Your task to perform on an android device: Go to location settings Image 0: 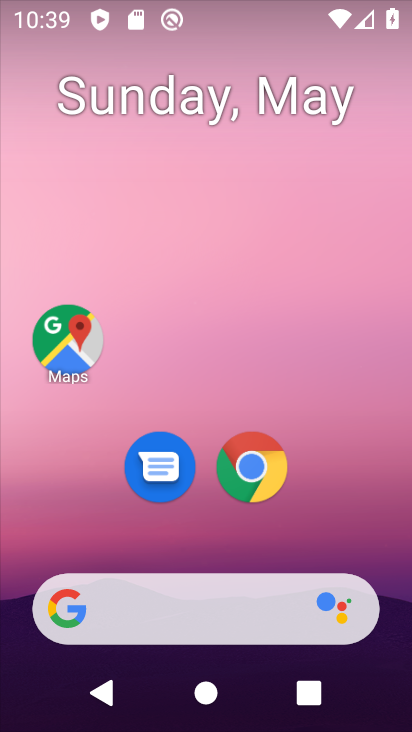
Step 0: drag from (344, 546) to (330, 6)
Your task to perform on an android device: Go to location settings Image 1: 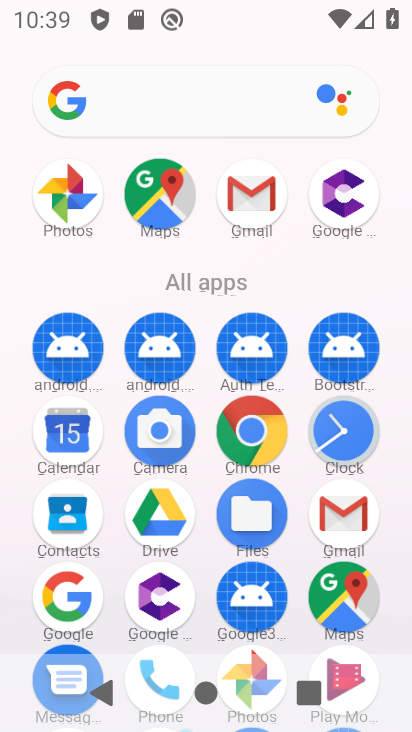
Step 1: drag from (410, 450) to (409, 410)
Your task to perform on an android device: Go to location settings Image 2: 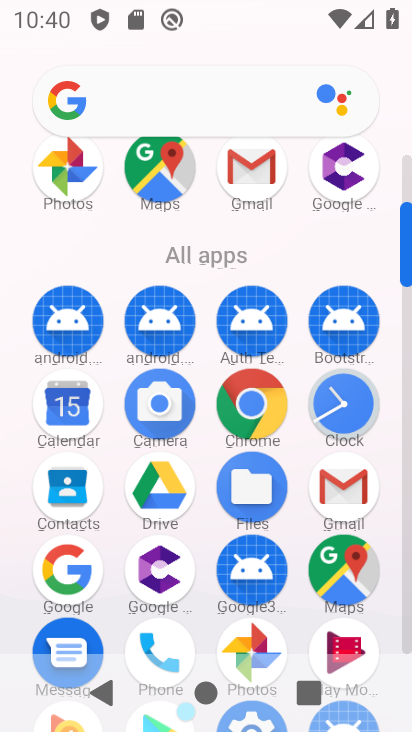
Step 2: drag from (384, 490) to (396, 293)
Your task to perform on an android device: Go to location settings Image 3: 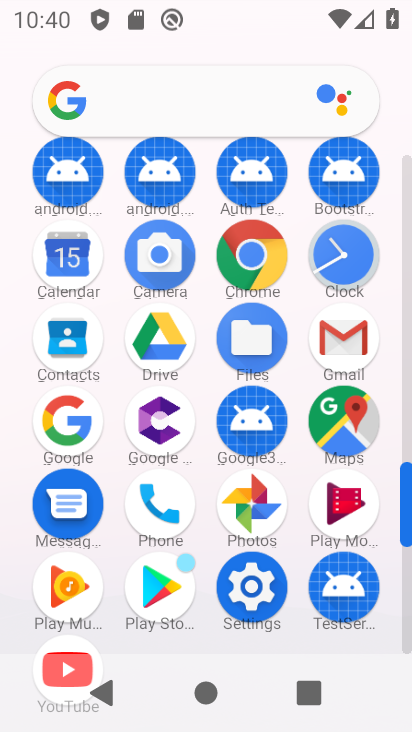
Step 3: click (249, 602)
Your task to perform on an android device: Go to location settings Image 4: 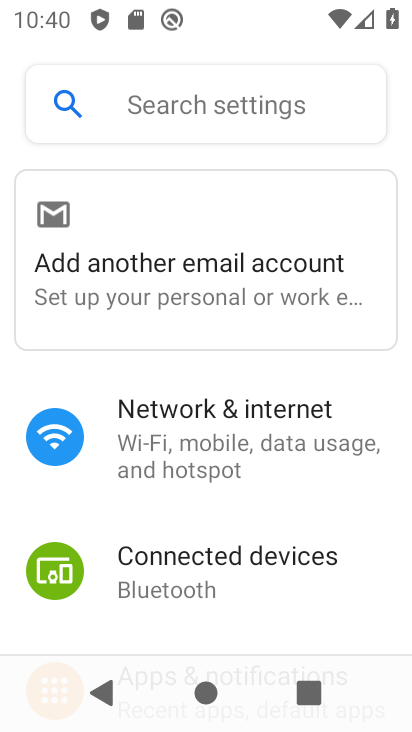
Step 4: drag from (371, 451) to (363, 113)
Your task to perform on an android device: Go to location settings Image 5: 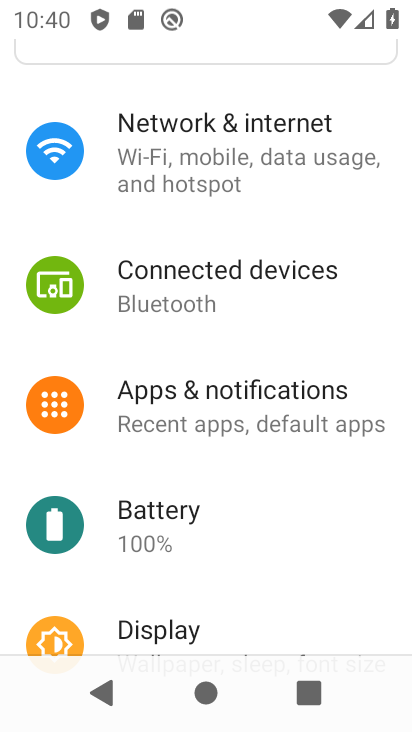
Step 5: drag from (334, 538) to (323, 174)
Your task to perform on an android device: Go to location settings Image 6: 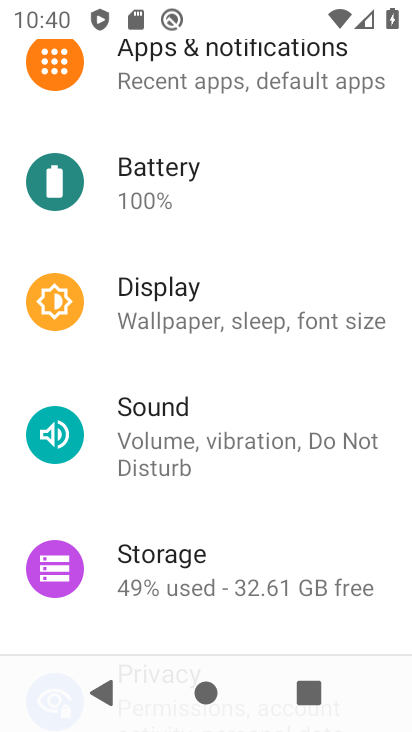
Step 6: drag from (315, 533) to (287, 251)
Your task to perform on an android device: Go to location settings Image 7: 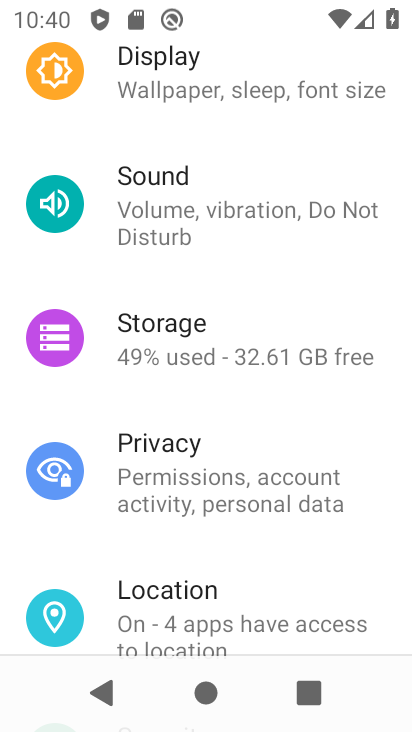
Step 7: click (173, 620)
Your task to perform on an android device: Go to location settings Image 8: 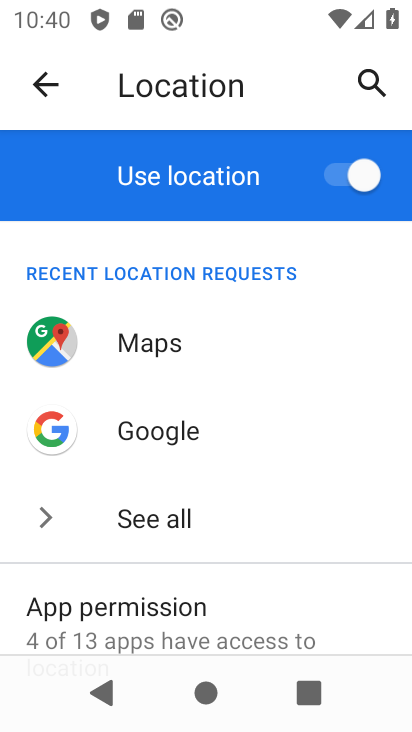
Step 8: task complete